Your task to perform on an android device: open app "Mercado Libre" (install if not already installed) Image 0: 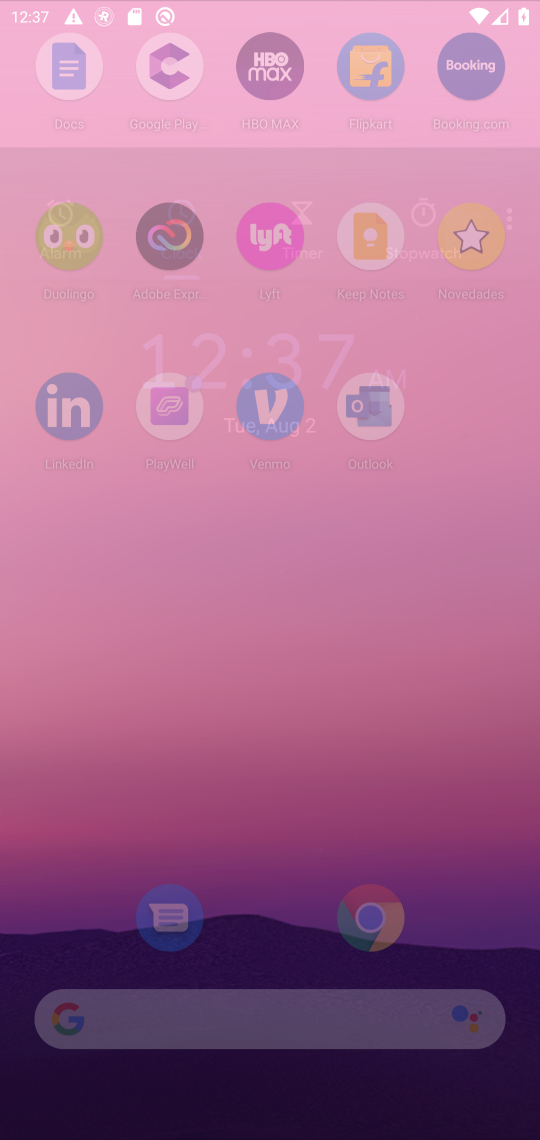
Step 0: press home button
Your task to perform on an android device: open app "Mercado Libre" (install if not already installed) Image 1: 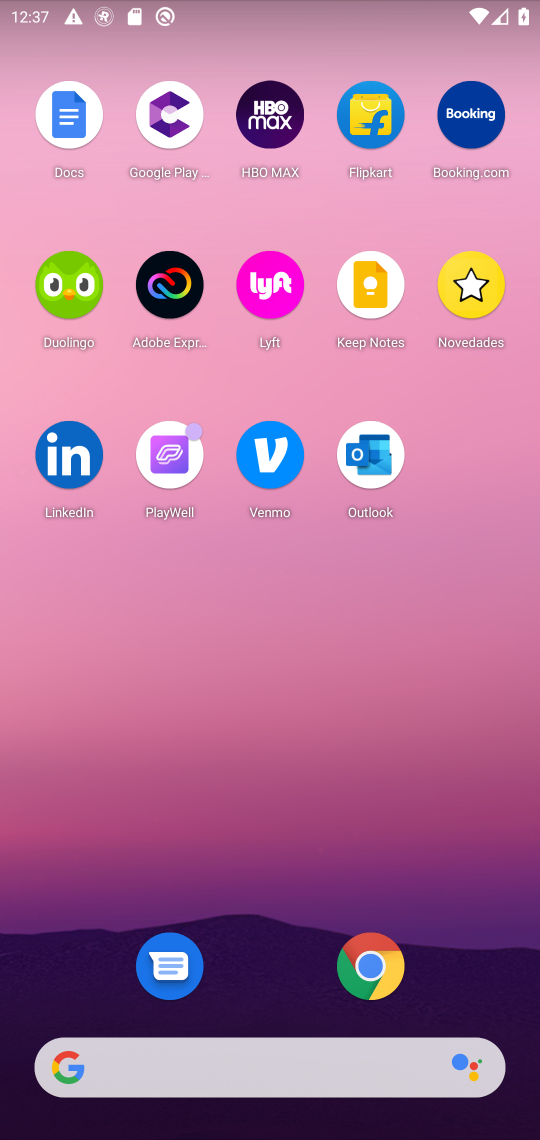
Step 1: drag from (452, 990) to (495, 193)
Your task to perform on an android device: open app "Mercado Libre" (install if not already installed) Image 2: 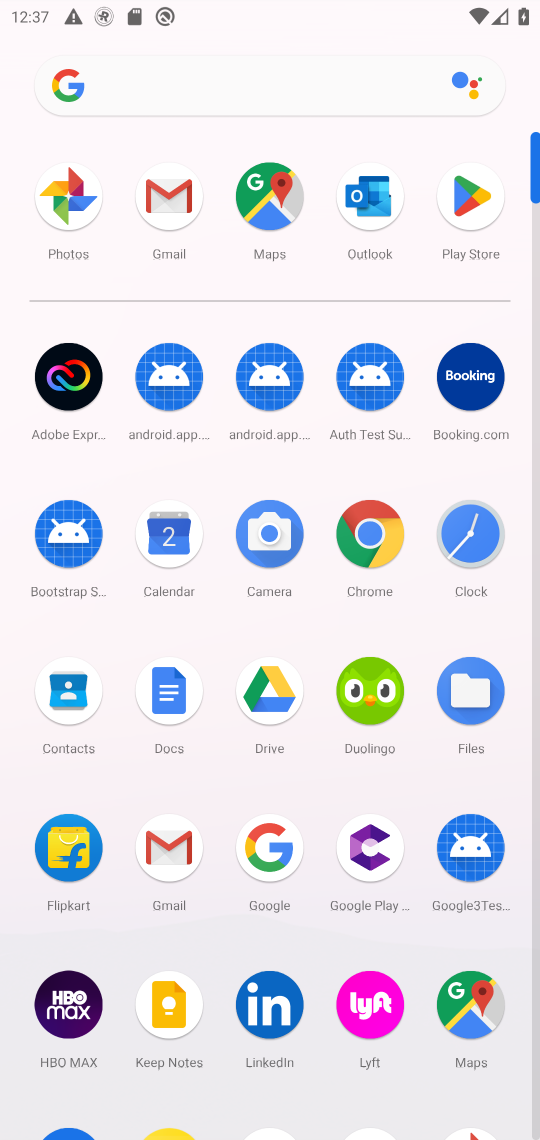
Step 2: click (464, 213)
Your task to perform on an android device: open app "Mercado Libre" (install if not already installed) Image 3: 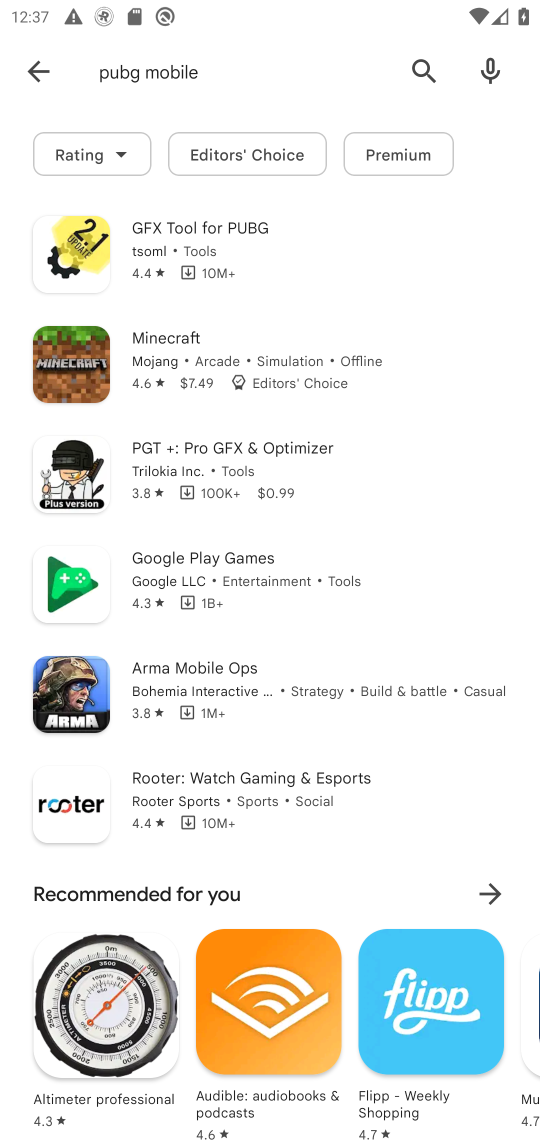
Step 3: click (417, 75)
Your task to perform on an android device: open app "Mercado Libre" (install if not already installed) Image 4: 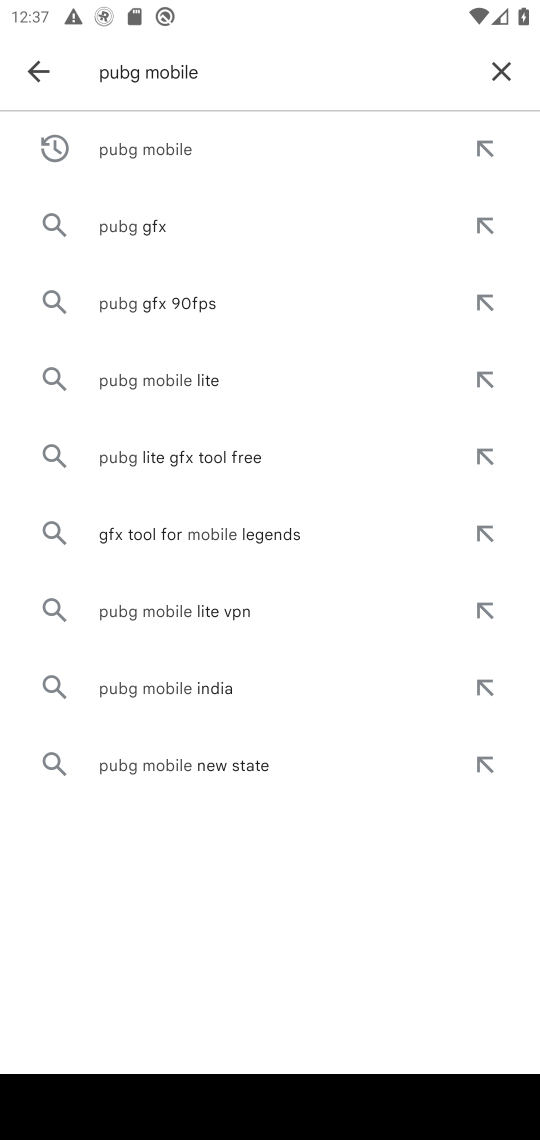
Step 4: click (492, 68)
Your task to perform on an android device: open app "Mercado Libre" (install if not already installed) Image 5: 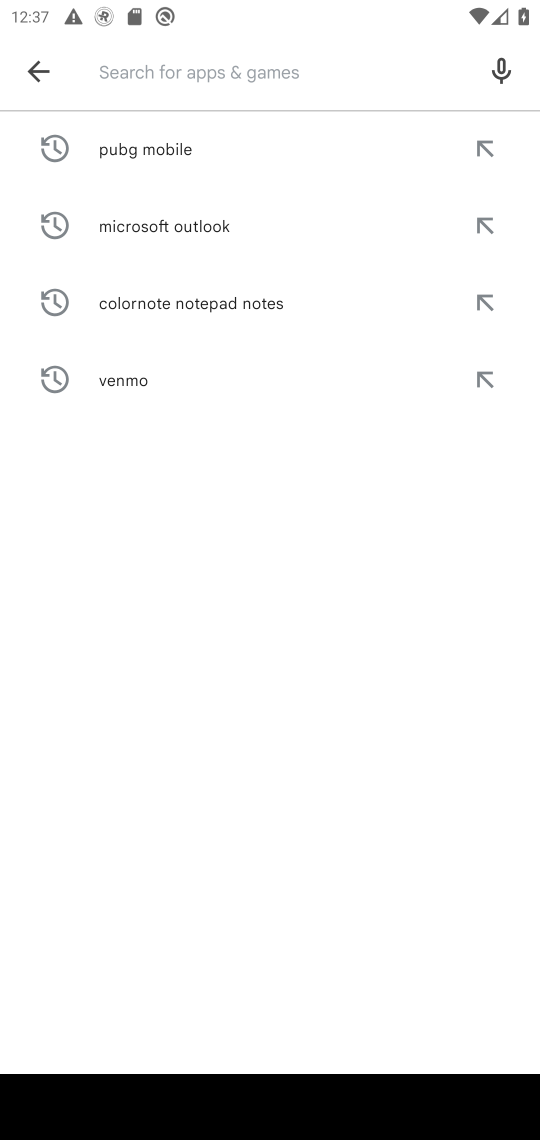
Step 5: type "mercado libre"
Your task to perform on an android device: open app "Mercado Libre" (install if not already installed) Image 6: 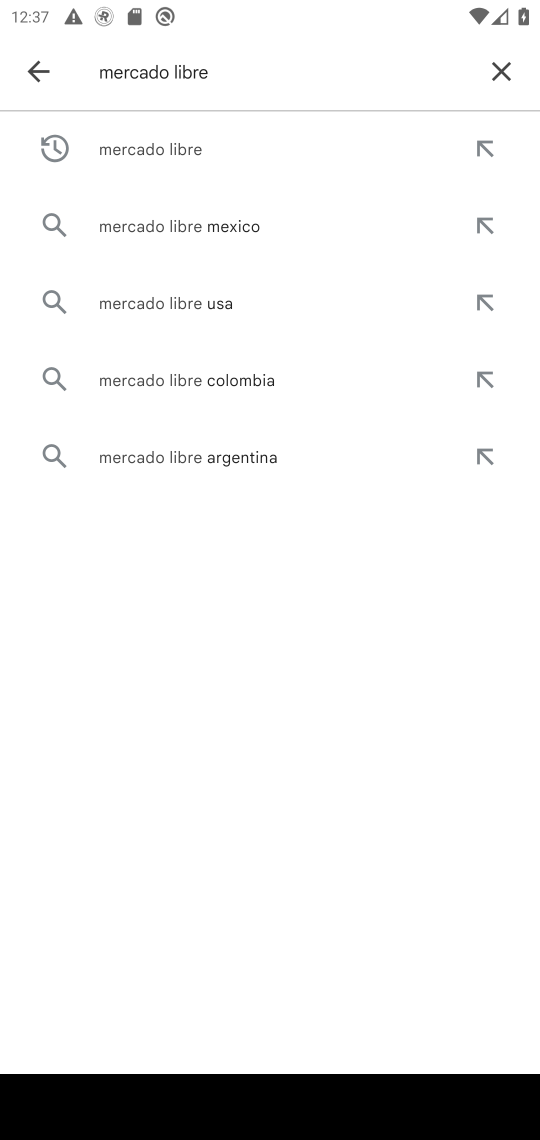
Step 6: click (274, 138)
Your task to perform on an android device: open app "Mercado Libre" (install if not already installed) Image 7: 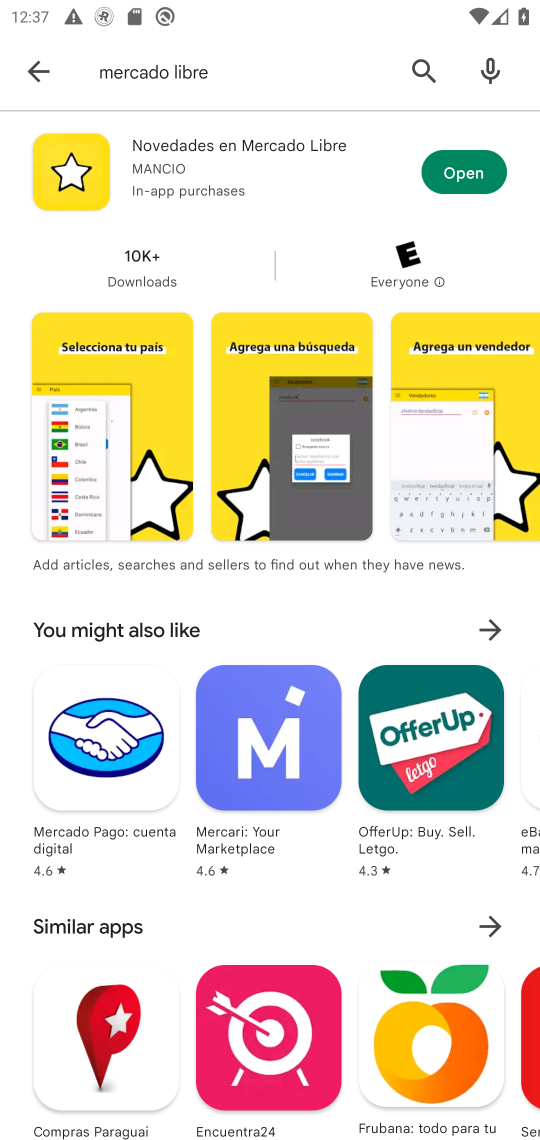
Step 7: click (473, 174)
Your task to perform on an android device: open app "Mercado Libre" (install if not already installed) Image 8: 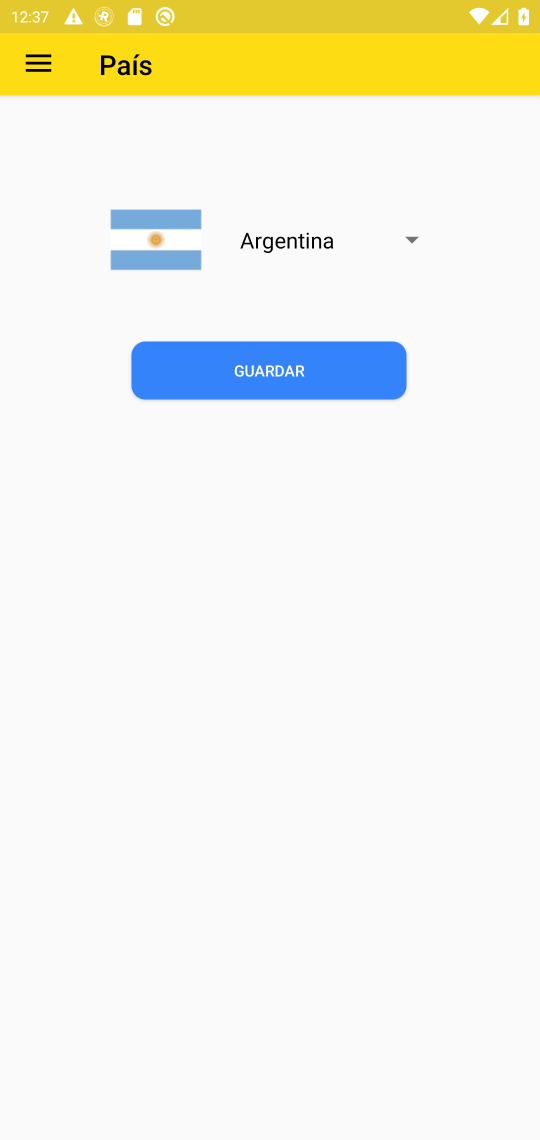
Step 8: task complete